Your task to perform on an android device: turn on improve location accuracy Image 0: 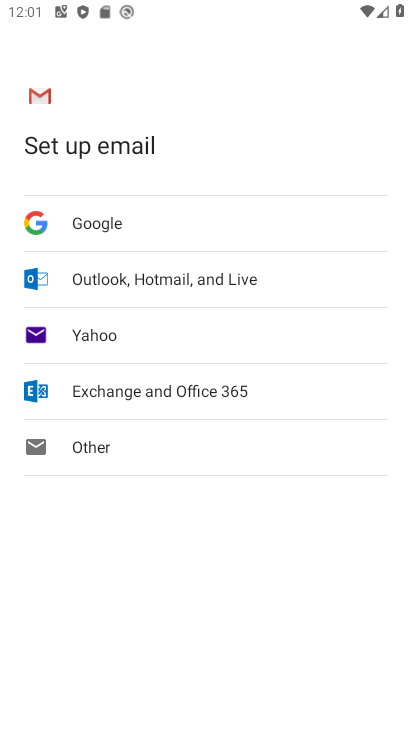
Step 0: press home button
Your task to perform on an android device: turn on improve location accuracy Image 1: 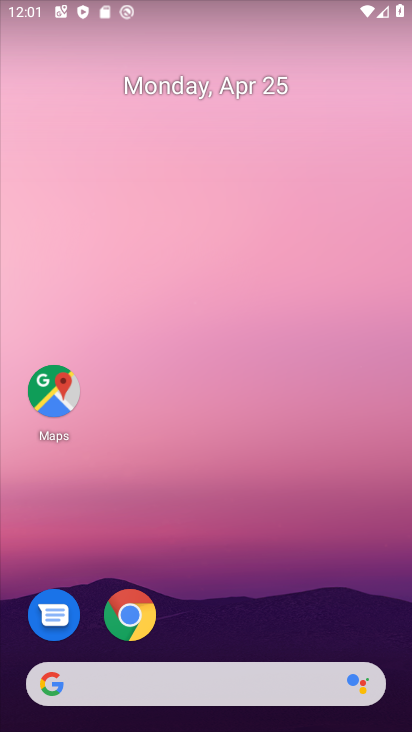
Step 1: drag from (356, 617) to (374, 96)
Your task to perform on an android device: turn on improve location accuracy Image 2: 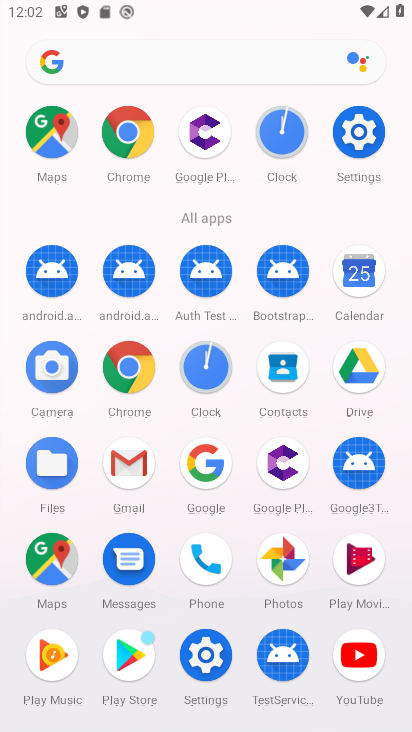
Step 2: click (370, 130)
Your task to perform on an android device: turn on improve location accuracy Image 3: 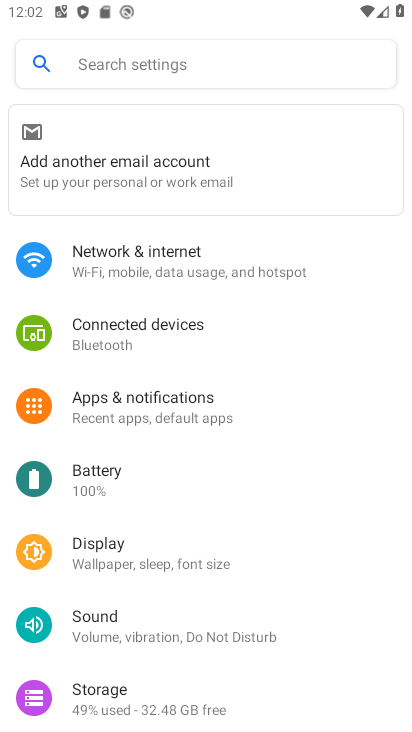
Step 3: drag from (310, 517) to (320, 424)
Your task to perform on an android device: turn on improve location accuracy Image 4: 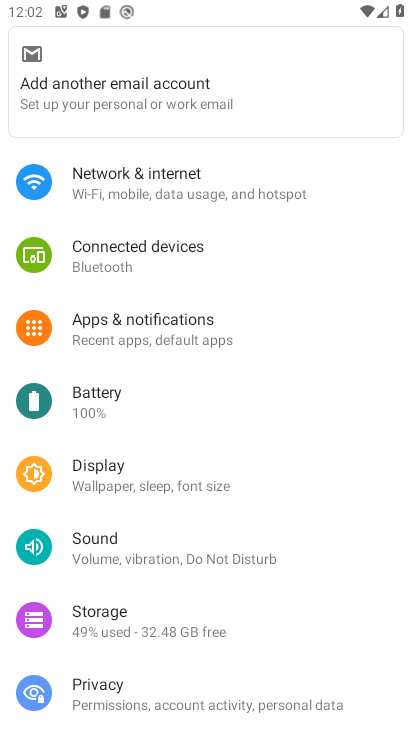
Step 4: drag from (347, 588) to (354, 467)
Your task to perform on an android device: turn on improve location accuracy Image 5: 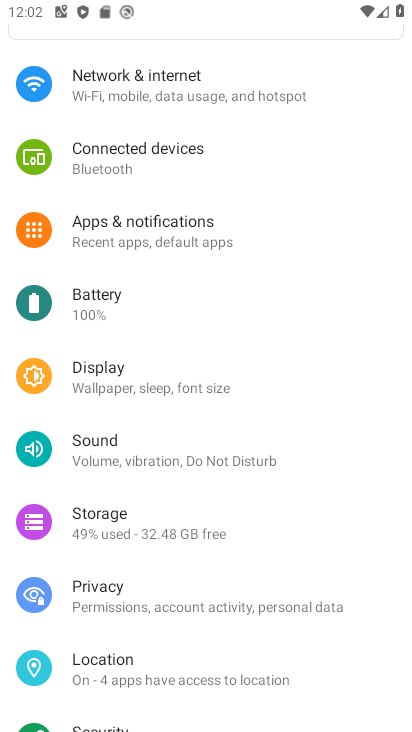
Step 5: drag from (358, 640) to (369, 471)
Your task to perform on an android device: turn on improve location accuracy Image 6: 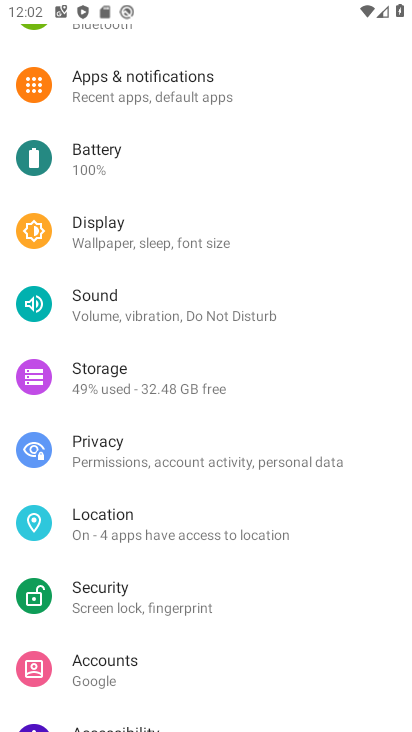
Step 6: drag from (346, 626) to (349, 485)
Your task to perform on an android device: turn on improve location accuracy Image 7: 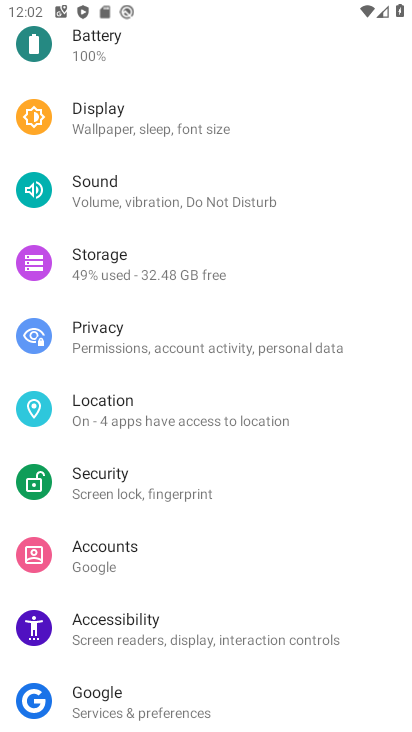
Step 7: drag from (359, 648) to (360, 493)
Your task to perform on an android device: turn on improve location accuracy Image 8: 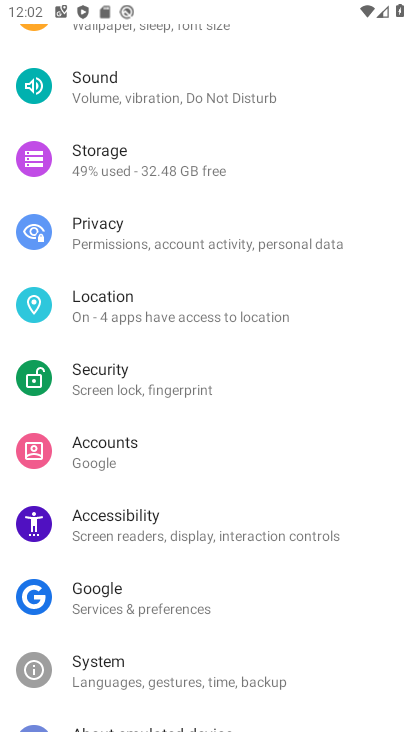
Step 8: drag from (345, 615) to (350, 492)
Your task to perform on an android device: turn on improve location accuracy Image 9: 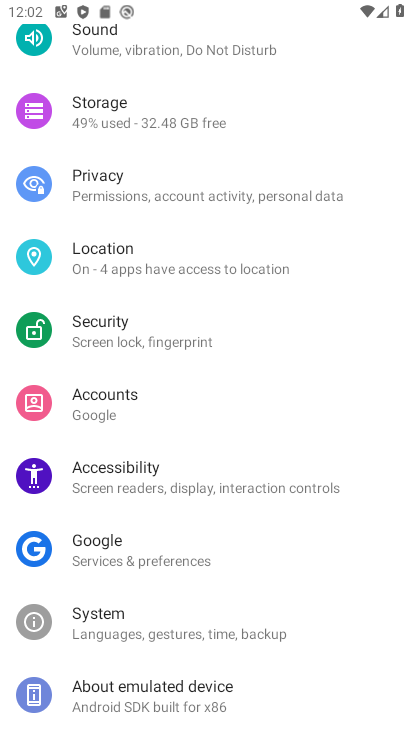
Step 9: drag from (344, 602) to (353, 444)
Your task to perform on an android device: turn on improve location accuracy Image 10: 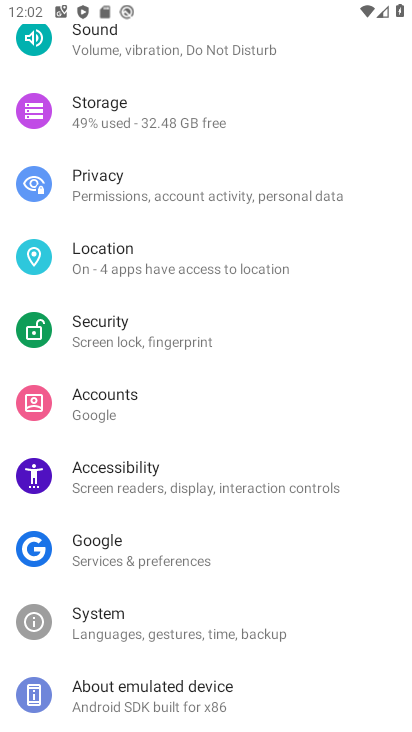
Step 10: click (251, 264)
Your task to perform on an android device: turn on improve location accuracy Image 11: 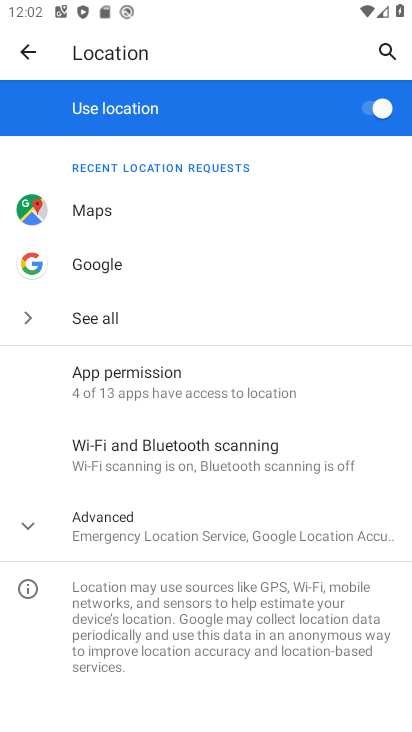
Step 11: click (238, 546)
Your task to perform on an android device: turn on improve location accuracy Image 12: 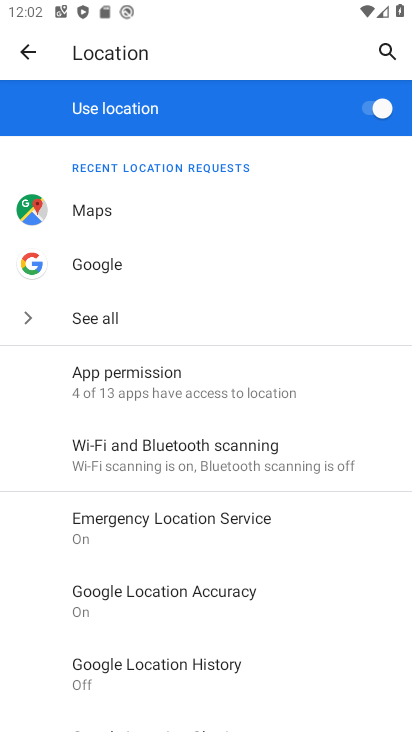
Step 12: drag from (284, 602) to (313, 375)
Your task to perform on an android device: turn on improve location accuracy Image 13: 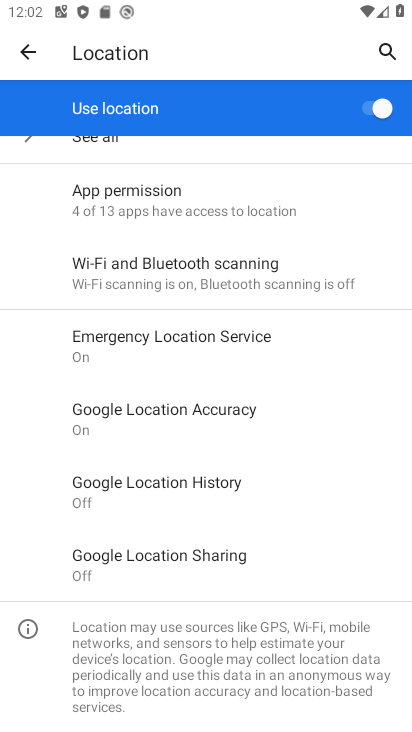
Step 13: click (233, 415)
Your task to perform on an android device: turn on improve location accuracy Image 14: 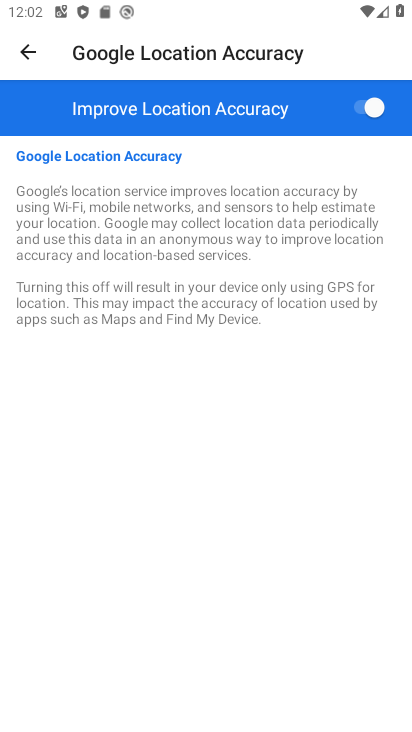
Step 14: task complete